Your task to perform on an android device: create a new album in the google photos Image 0: 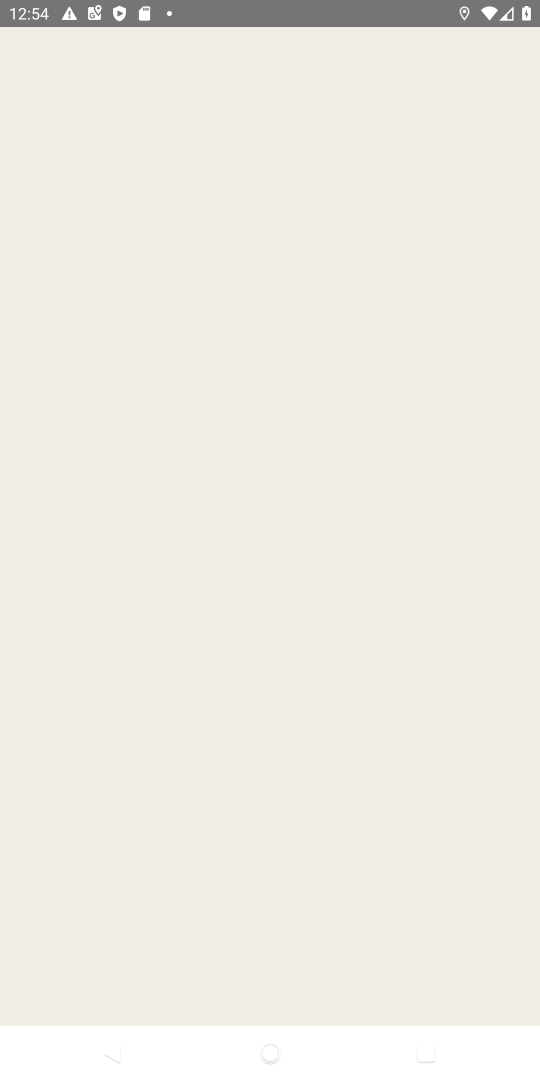
Step 0: press home button
Your task to perform on an android device: create a new album in the google photos Image 1: 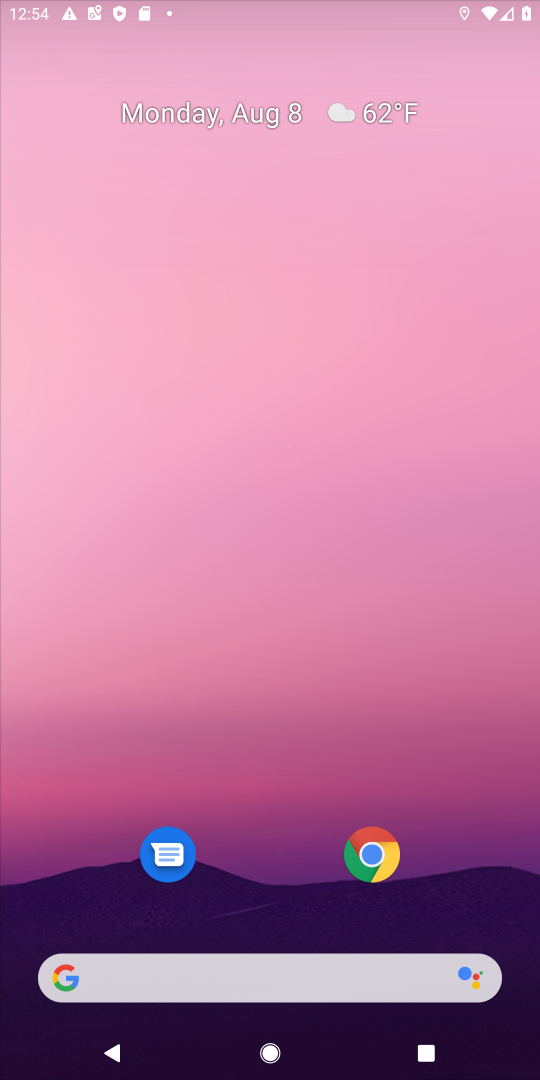
Step 1: drag from (282, 871) to (289, 57)
Your task to perform on an android device: create a new album in the google photos Image 2: 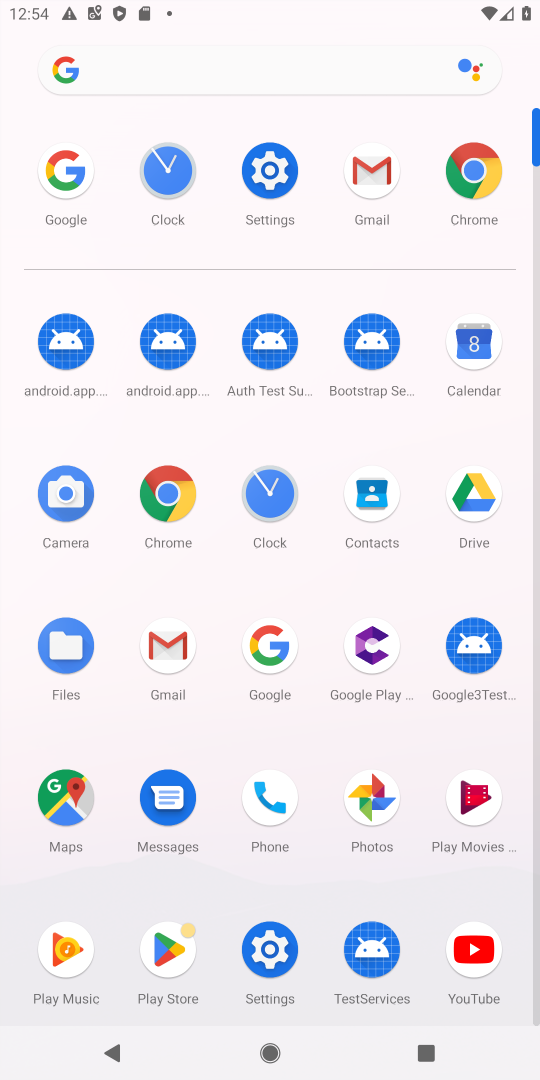
Step 2: click (358, 786)
Your task to perform on an android device: create a new album in the google photos Image 3: 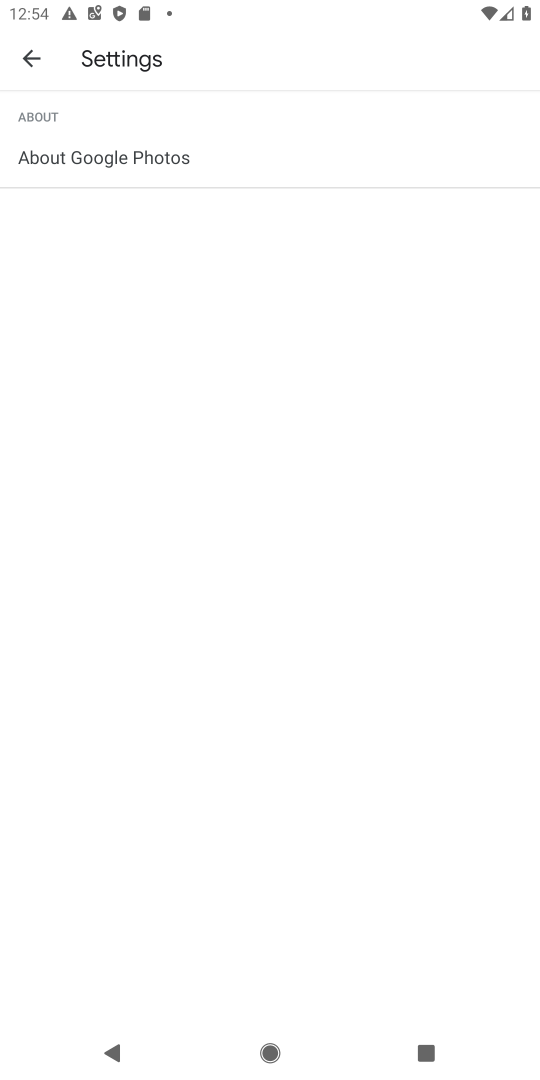
Step 3: click (31, 62)
Your task to perform on an android device: create a new album in the google photos Image 4: 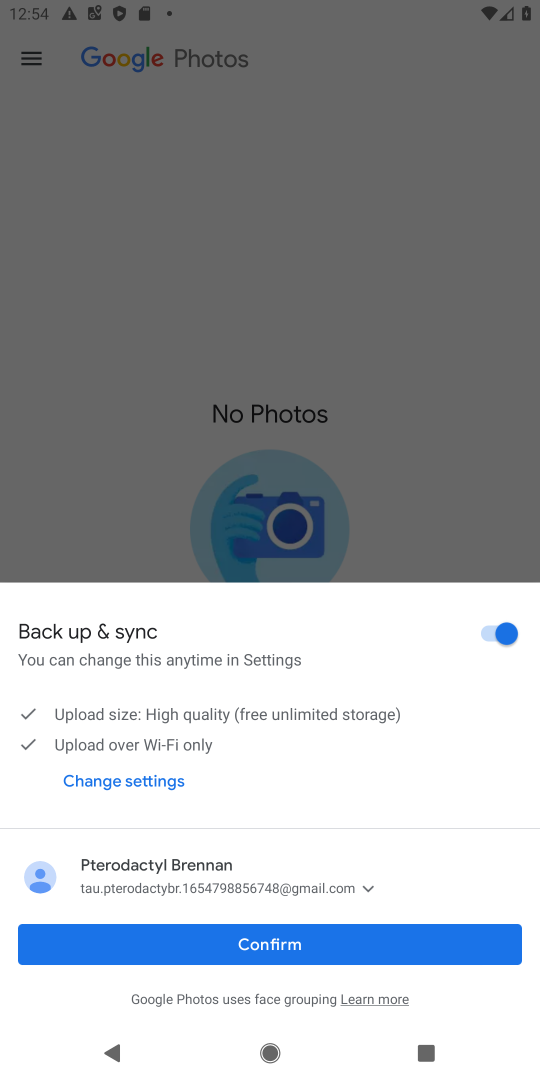
Step 4: click (244, 950)
Your task to perform on an android device: create a new album in the google photos Image 5: 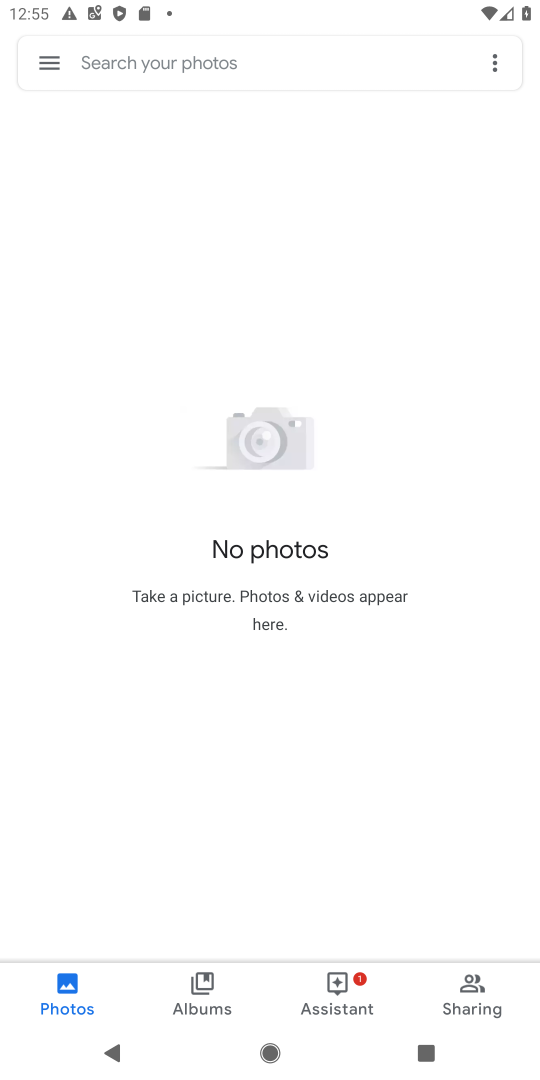
Step 5: task complete